Your task to perform on an android device: Show me recent news Image 0: 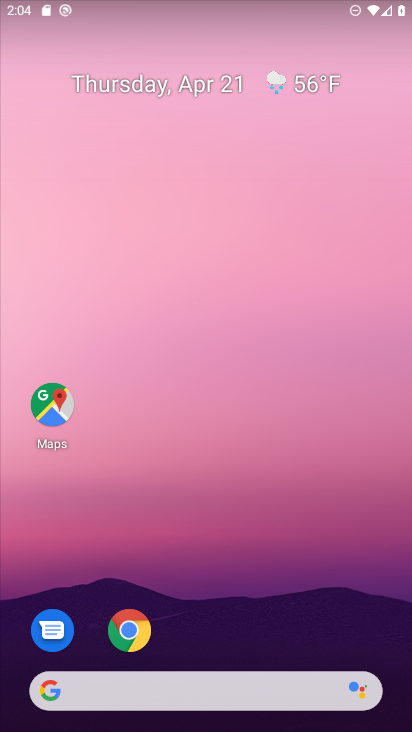
Step 0: drag from (191, 684) to (177, 41)
Your task to perform on an android device: Show me recent news Image 1: 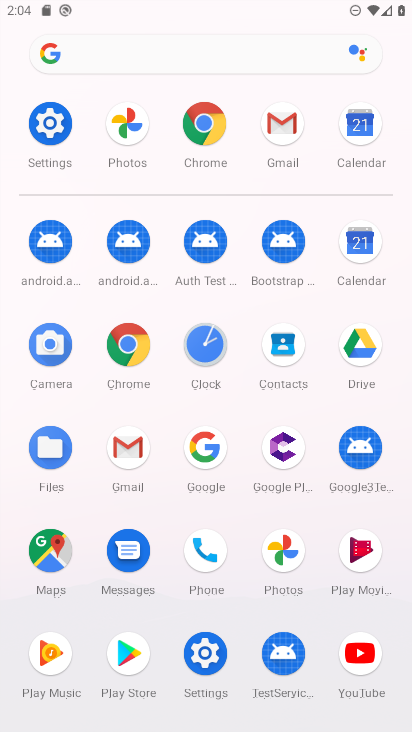
Step 1: click (222, 466)
Your task to perform on an android device: Show me recent news Image 2: 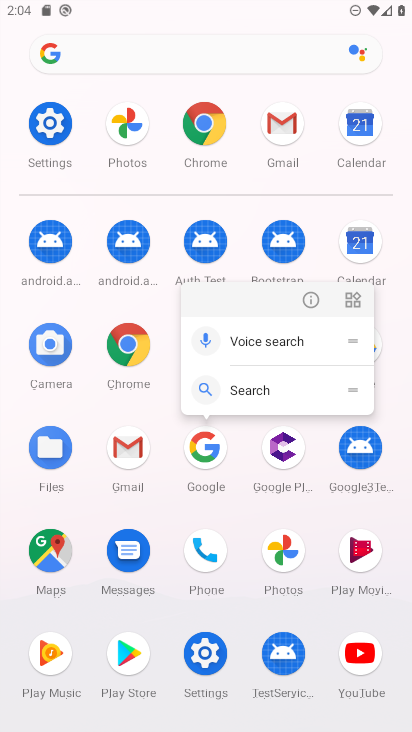
Step 2: click (222, 466)
Your task to perform on an android device: Show me recent news Image 3: 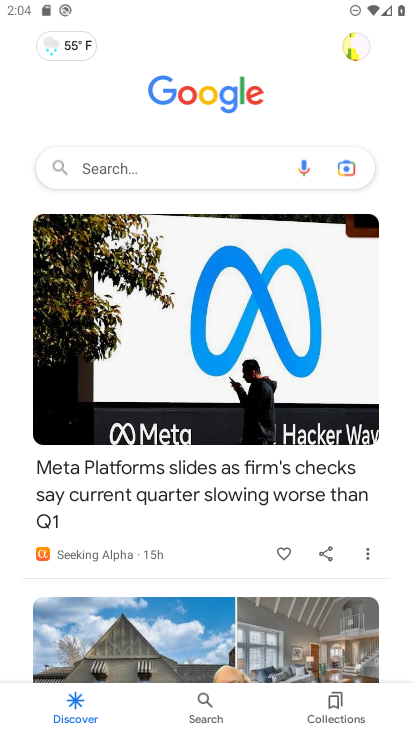
Step 3: task complete